Your task to perform on an android device: Open notification settings Image 0: 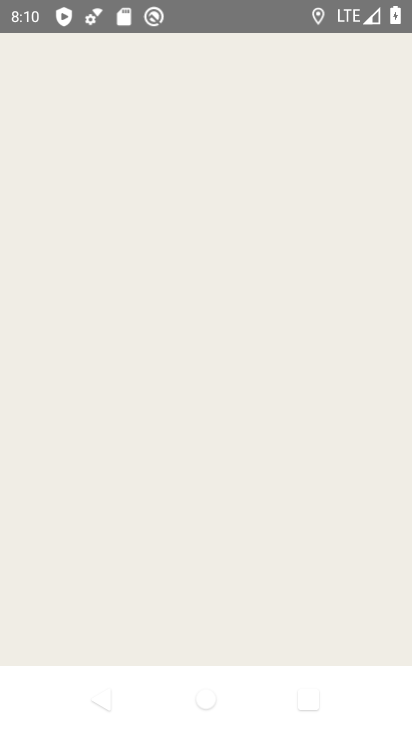
Step 0: press home button
Your task to perform on an android device: Open notification settings Image 1: 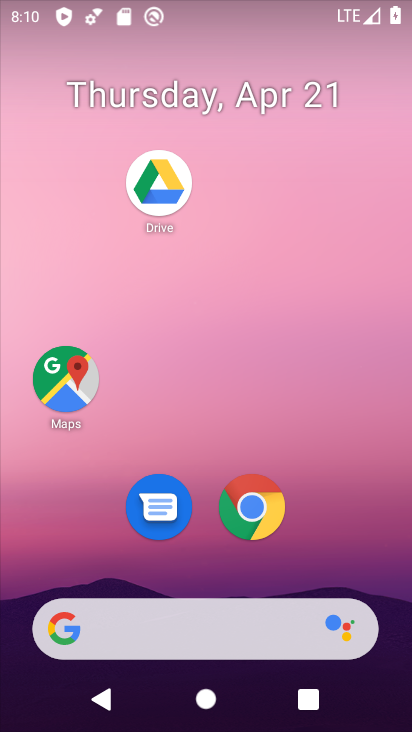
Step 1: drag from (359, 544) to (363, 142)
Your task to perform on an android device: Open notification settings Image 2: 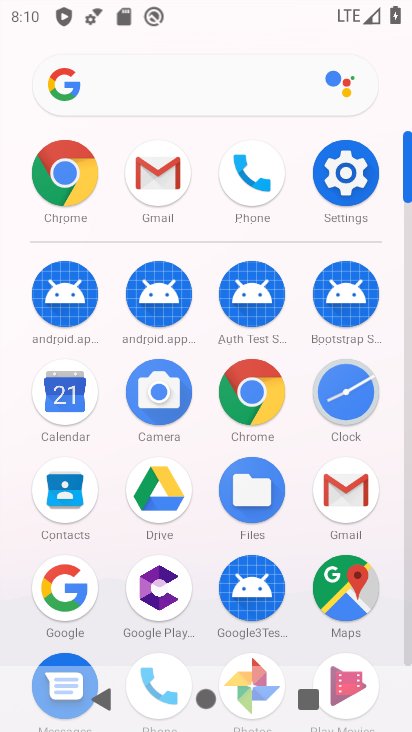
Step 2: click (349, 184)
Your task to perform on an android device: Open notification settings Image 3: 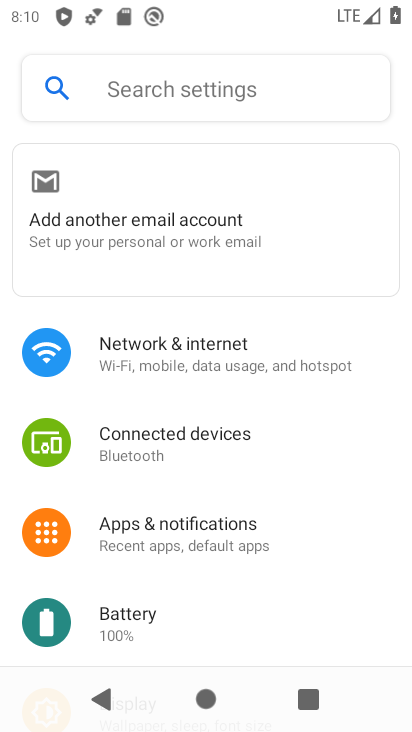
Step 3: drag from (358, 558) to (359, 414)
Your task to perform on an android device: Open notification settings Image 4: 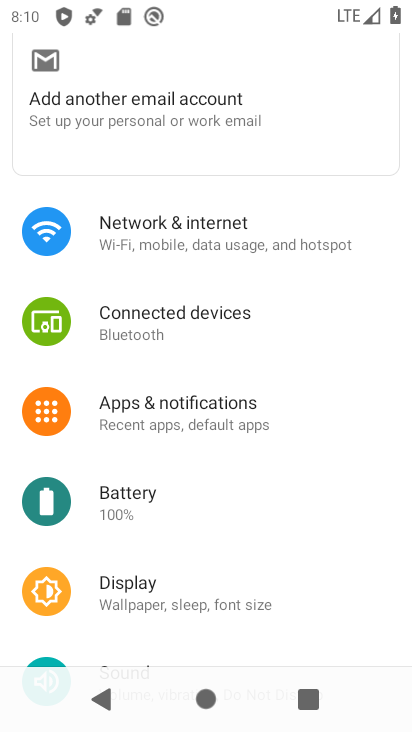
Step 4: drag from (342, 578) to (350, 423)
Your task to perform on an android device: Open notification settings Image 5: 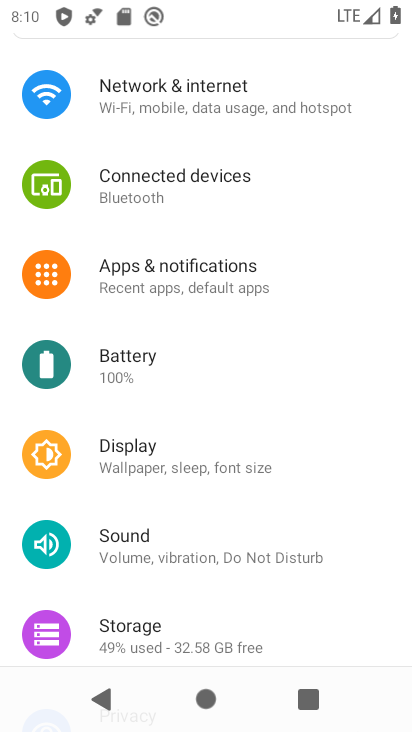
Step 5: drag from (350, 610) to (356, 434)
Your task to perform on an android device: Open notification settings Image 6: 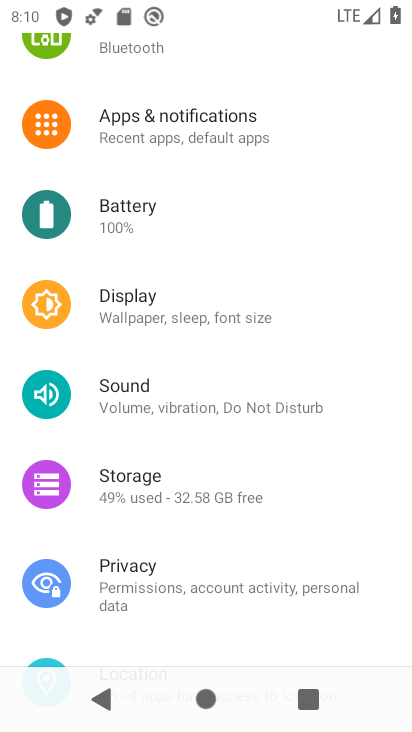
Step 6: drag from (356, 630) to (357, 482)
Your task to perform on an android device: Open notification settings Image 7: 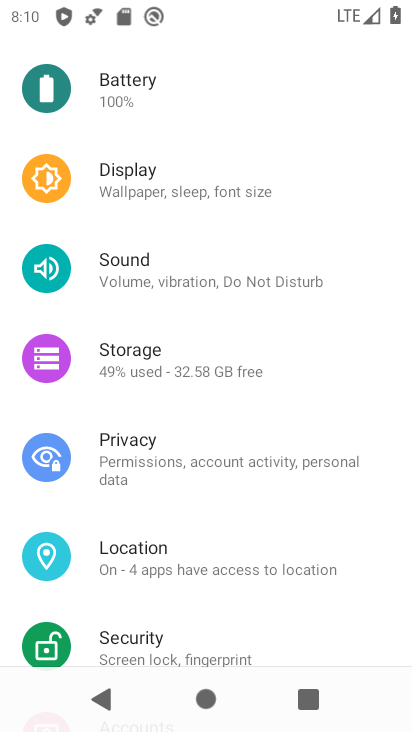
Step 7: drag from (358, 625) to (368, 474)
Your task to perform on an android device: Open notification settings Image 8: 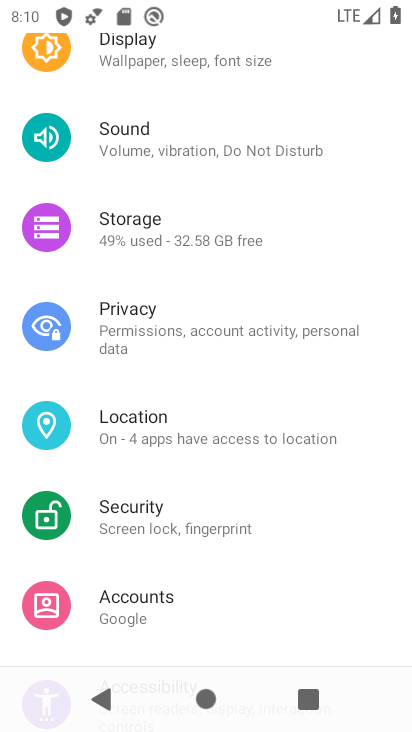
Step 8: drag from (363, 556) to (365, 448)
Your task to perform on an android device: Open notification settings Image 9: 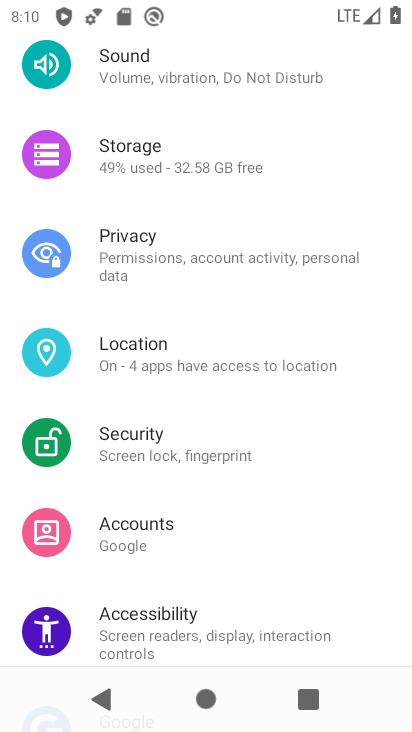
Step 9: drag from (344, 446) to (360, 313)
Your task to perform on an android device: Open notification settings Image 10: 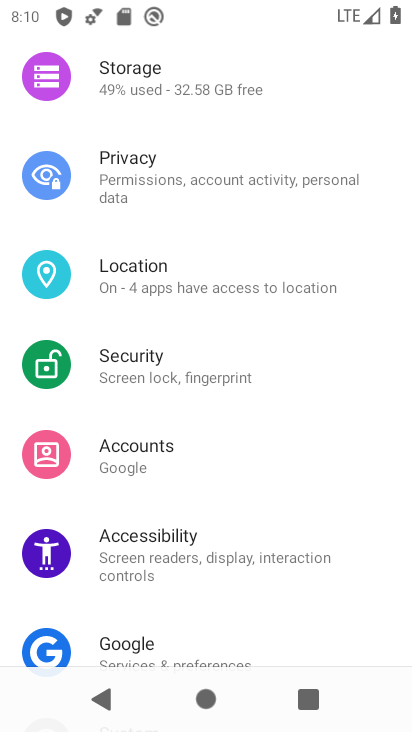
Step 10: drag from (371, 253) to (343, 459)
Your task to perform on an android device: Open notification settings Image 11: 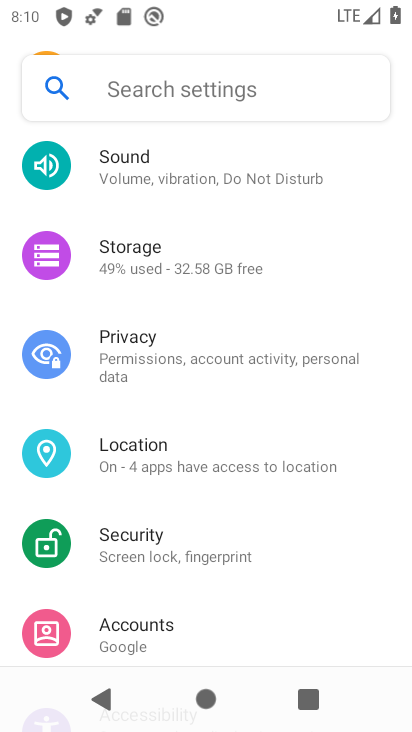
Step 11: drag from (351, 294) to (354, 447)
Your task to perform on an android device: Open notification settings Image 12: 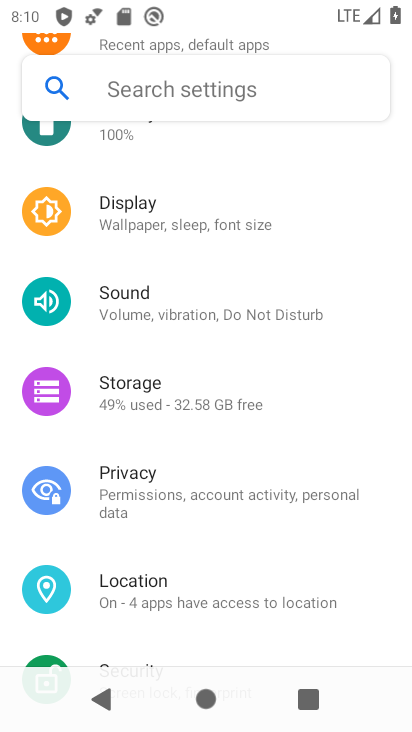
Step 12: drag from (368, 269) to (366, 428)
Your task to perform on an android device: Open notification settings Image 13: 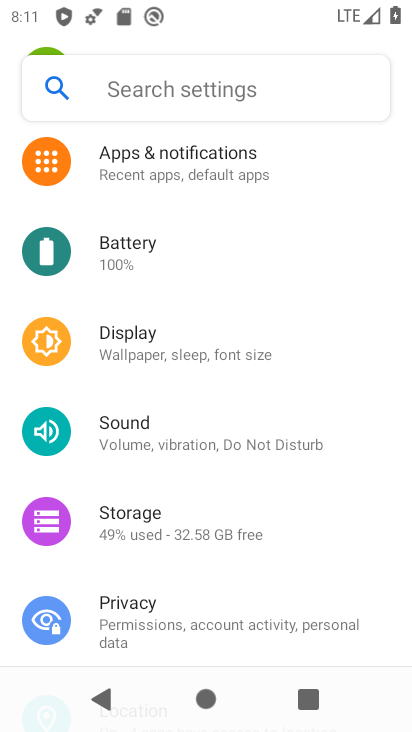
Step 13: drag from (358, 227) to (353, 405)
Your task to perform on an android device: Open notification settings Image 14: 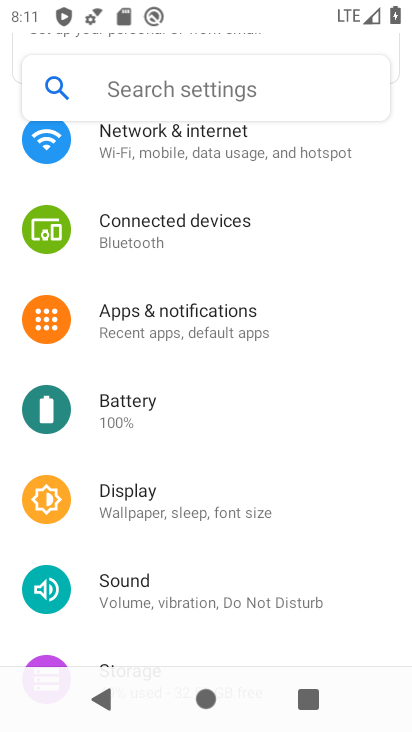
Step 14: click (255, 310)
Your task to perform on an android device: Open notification settings Image 15: 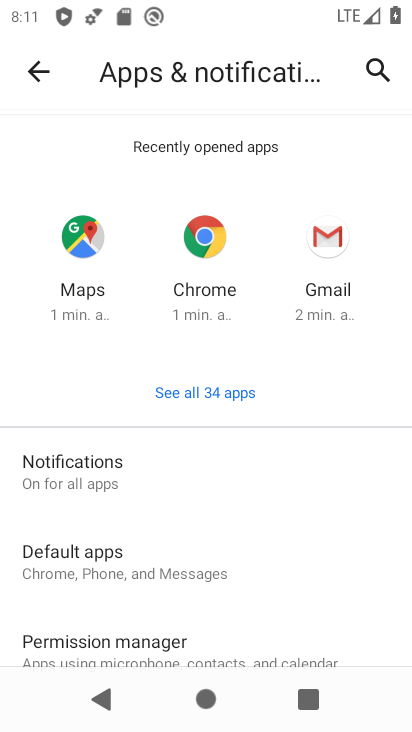
Step 15: click (80, 486)
Your task to perform on an android device: Open notification settings Image 16: 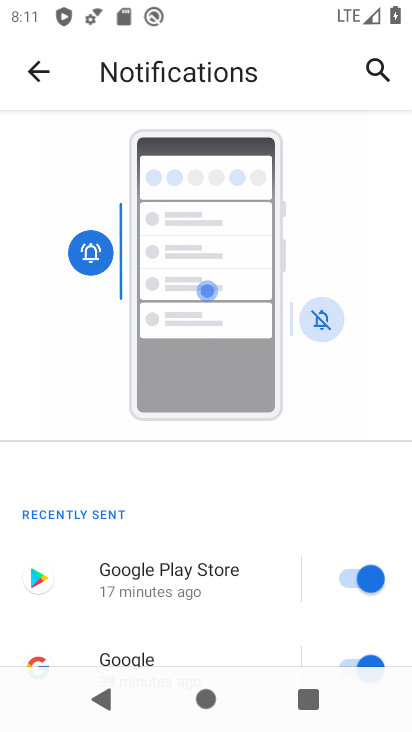
Step 16: task complete